Your task to perform on an android device: toggle improve location accuracy Image 0: 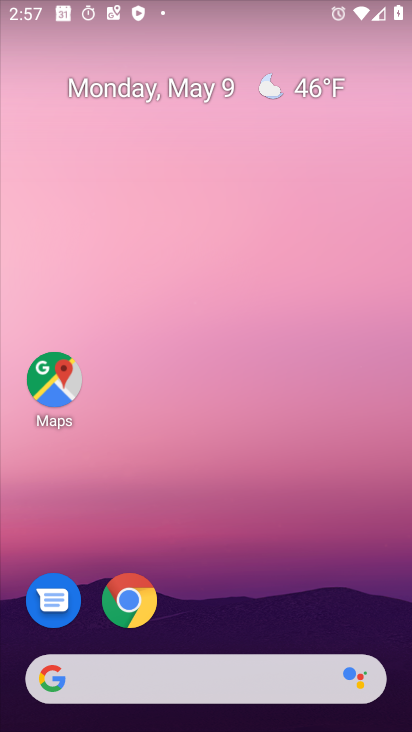
Step 0: drag from (253, 510) to (305, 69)
Your task to perform on an android device: toggle improve location accuracy Image 1: 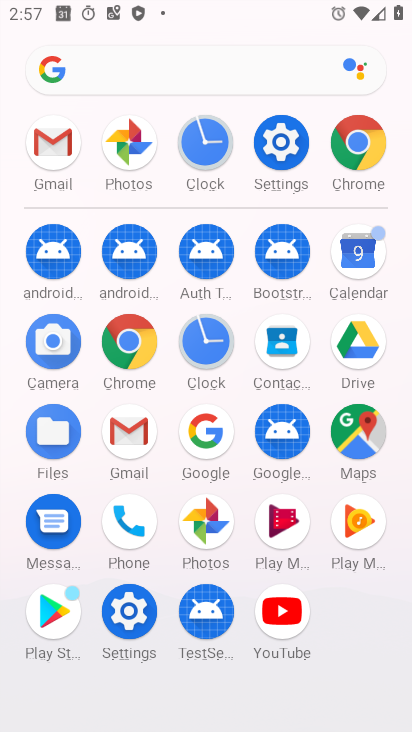
Step 1: click (277, 142)
Your task to perform on an android device: toggle improve location accuracy Image 2: 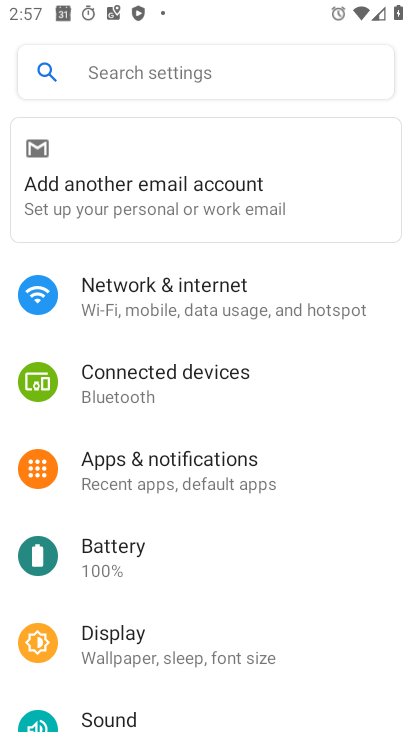
Step 2: drag from (134, 675) to (258, 204)
Your task to perform on an android device: toggle improve location accuracy Image 3: 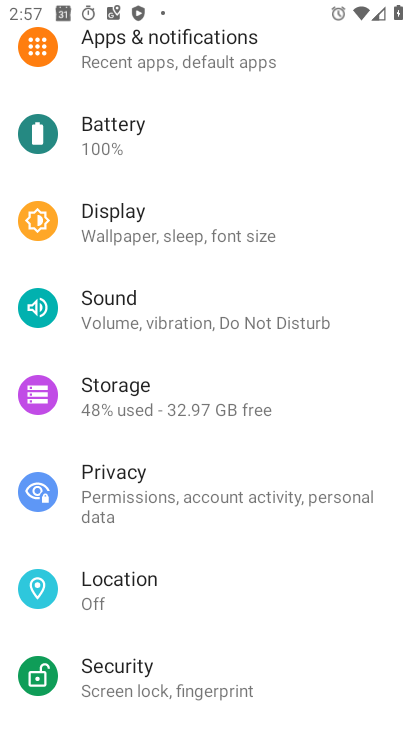
Step 3: click (119, 592)
Your task to perform on an android device: toggle improve location accuracy Image 4: 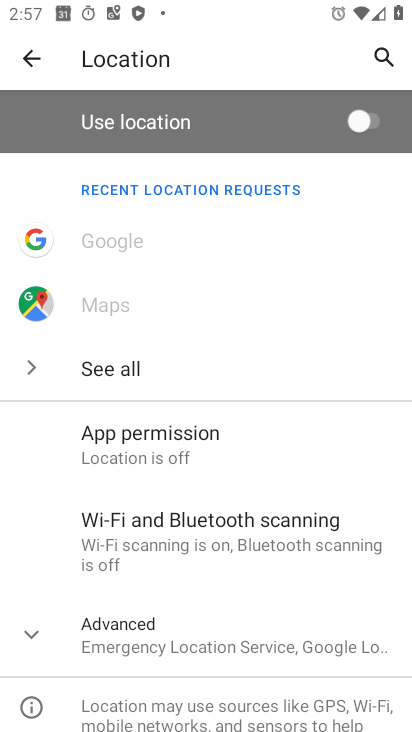
Step 4: drag from (182, 665) to (241, 435)
Your task to perform on an android device: toggle improve location accuracy Image 5: 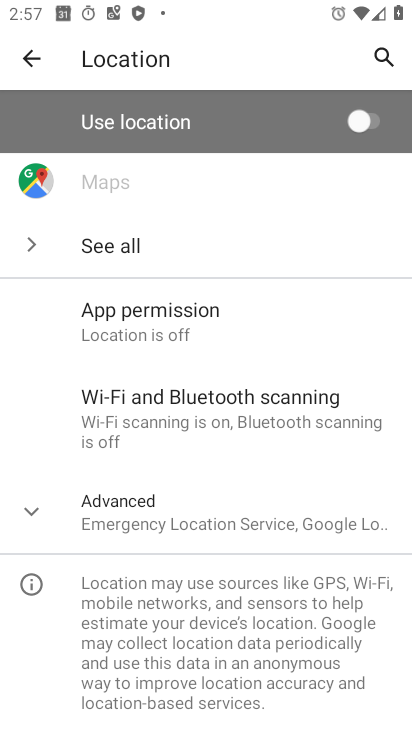
Step 5: click (180, 517)
Your task to perform on an android device: toggle improve location accuracy Image 6: 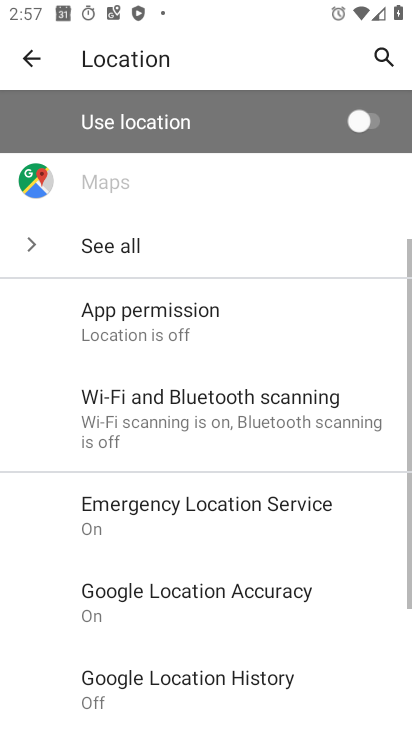
Step 6: drag from (195, 592) to (262, 340)
Your task to perform on an android device: toggle improve location accuracy Image 7: 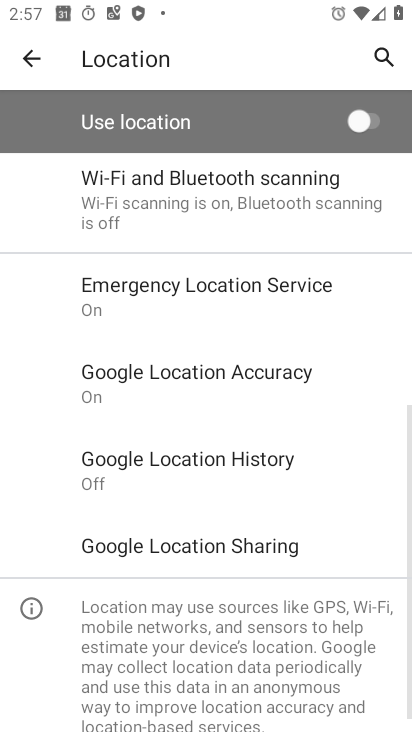
Step 7: click (109, 376)
Your task to perform on an android device: toggle improve location accuracy Image 8: 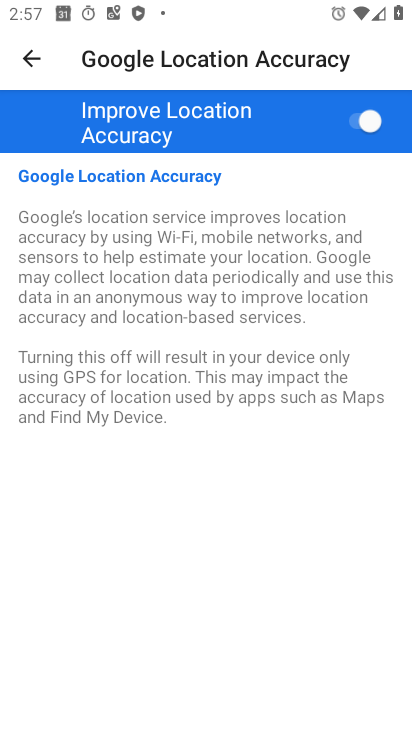
Step 8: click (370, 116)
Your task to perform on an android device: toggle improve location accuracy Image 9: 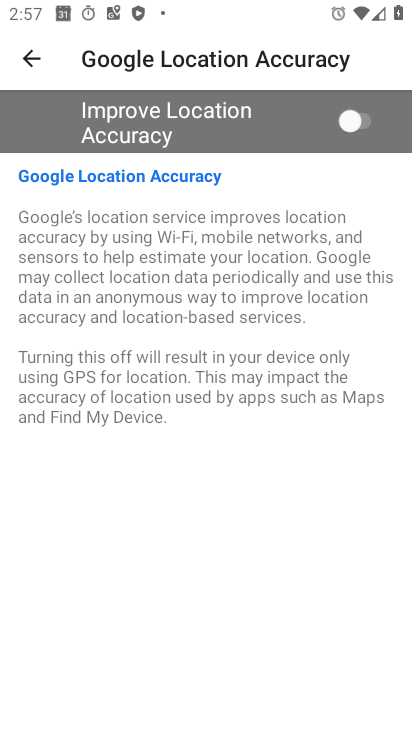
Step 9: task complete